Your task to perform on an android device: View the shopping cart on newegg. Add "razer blackwidow" to the cart on newegg Image 0: 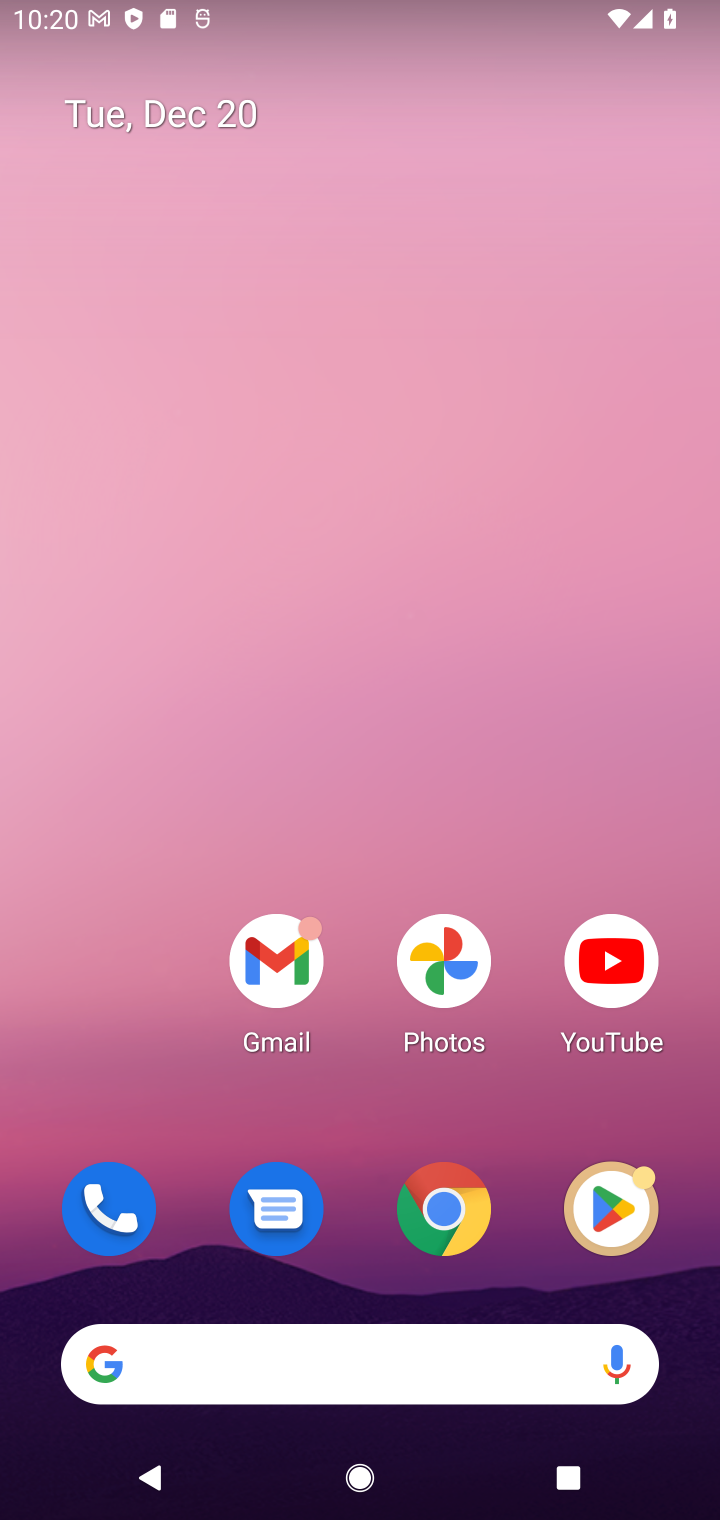
Step 0: click (445, 1214)
Your task to perform on an android device: View the shopping cart on newegg. Add "razer blackwidow" to the cart on newegg Image 1: 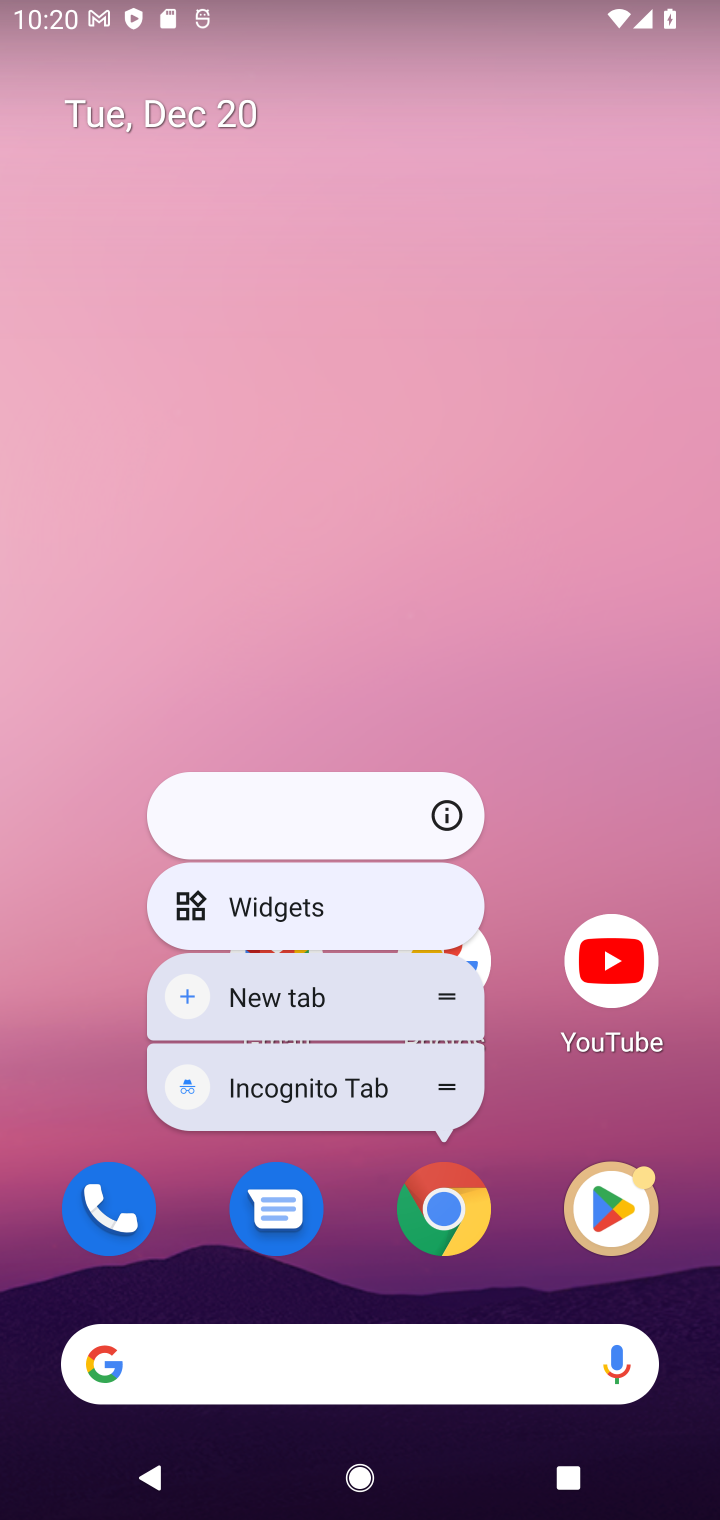
Step 1: click (445, 1214)
Your task to perform on an android device: View the shopping cart on newegg. Add "razer blackwidow" to the cart on newegg Image 2: 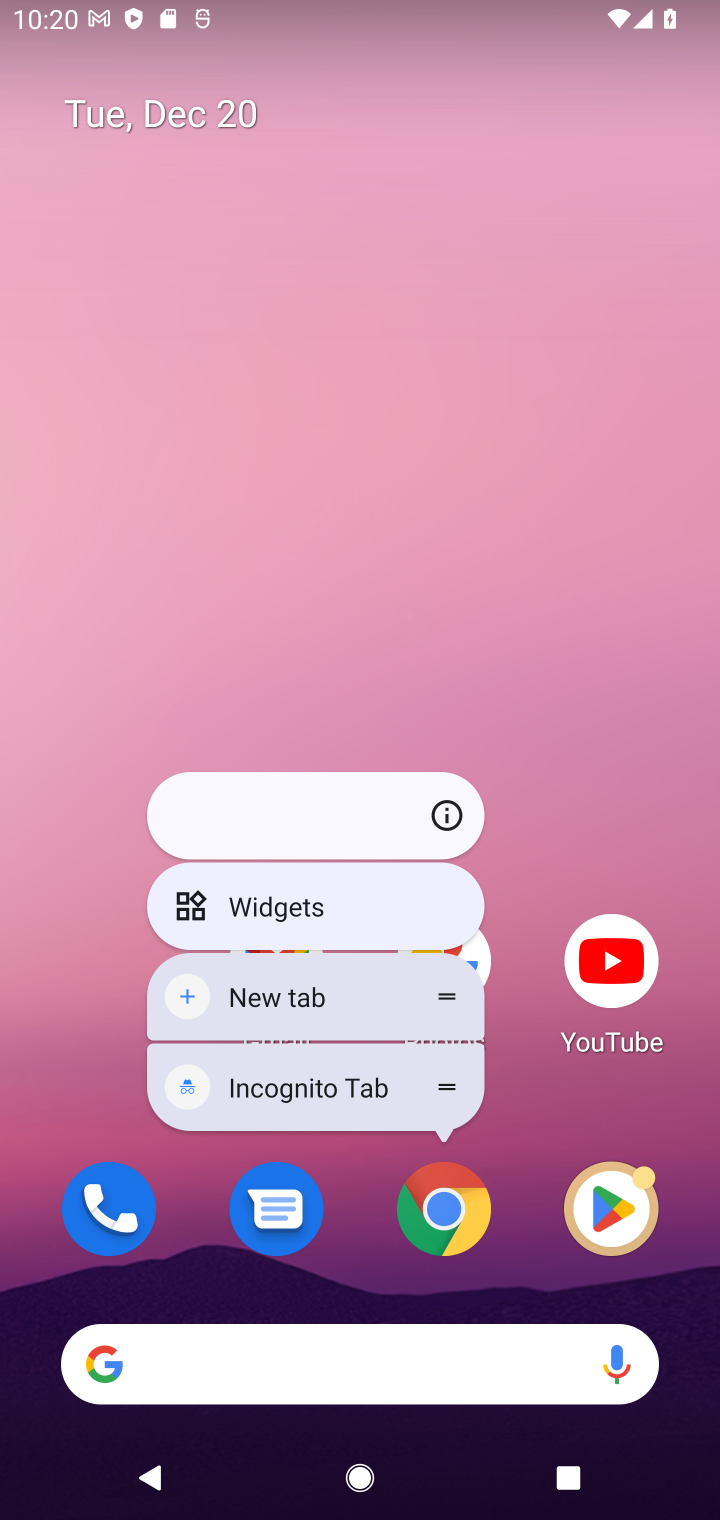
Step 2: click (445, 1214)
Your task to perform on an android device: View the shopping cart on newegg. Add "razer blackwidow" to the cart on newegg Image 3: 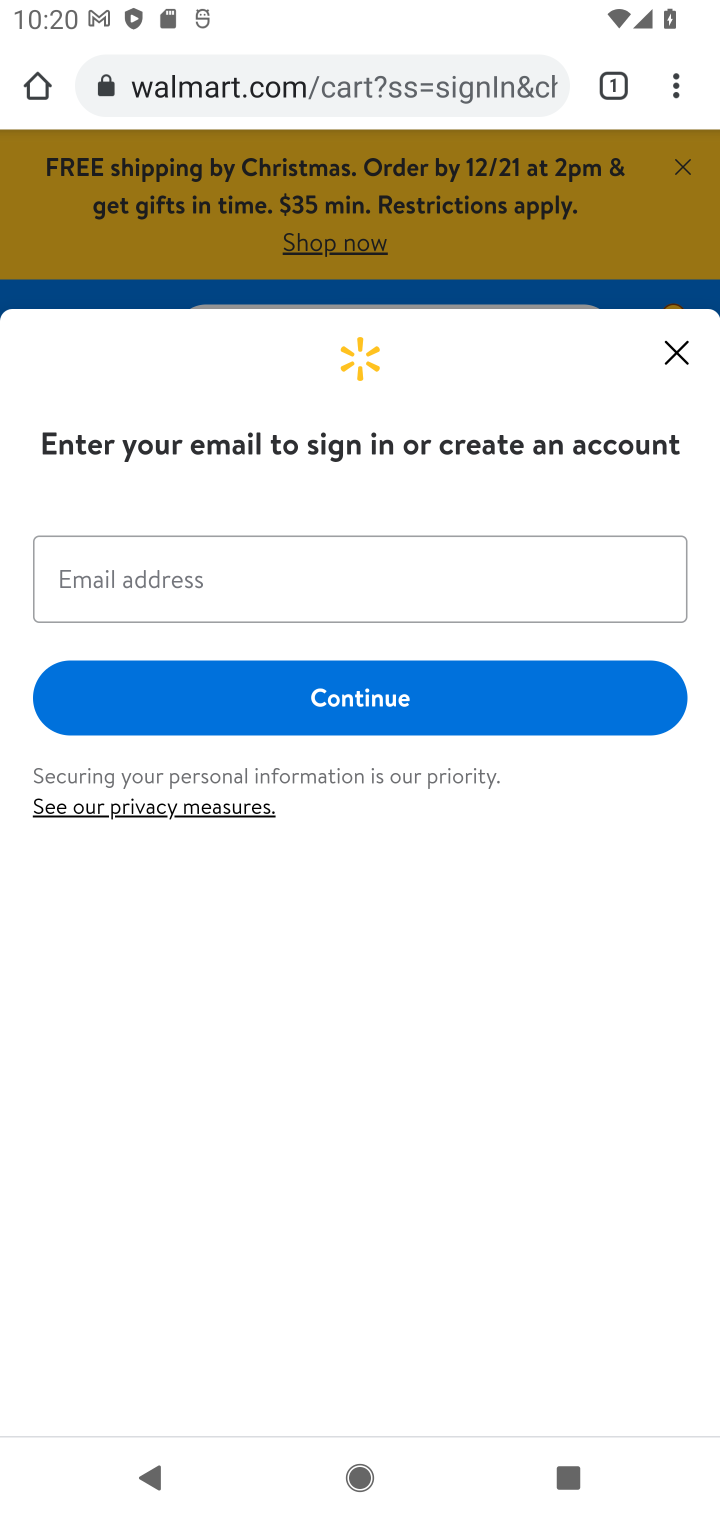
Step 3: click (253, 82)
Your task to perform on an android device: View the shopping cart on newegg. Add "razer blackwidow" to the cart on newegg Image 4: 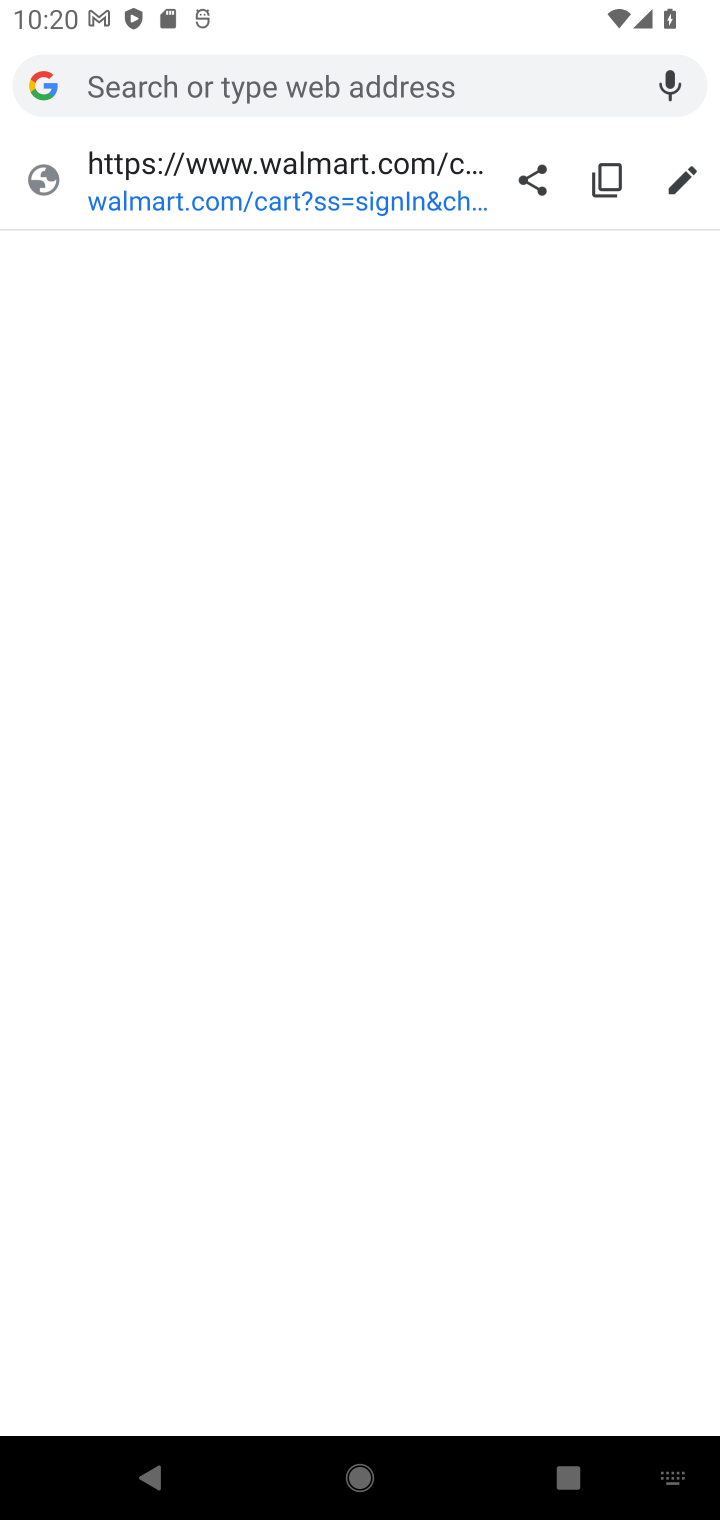
Step 4: type "newegg.com"
Your task to perform on an android device: View the shopping cart on newegg. Add "razer blackwidow" to the cart on newegg Image 5: 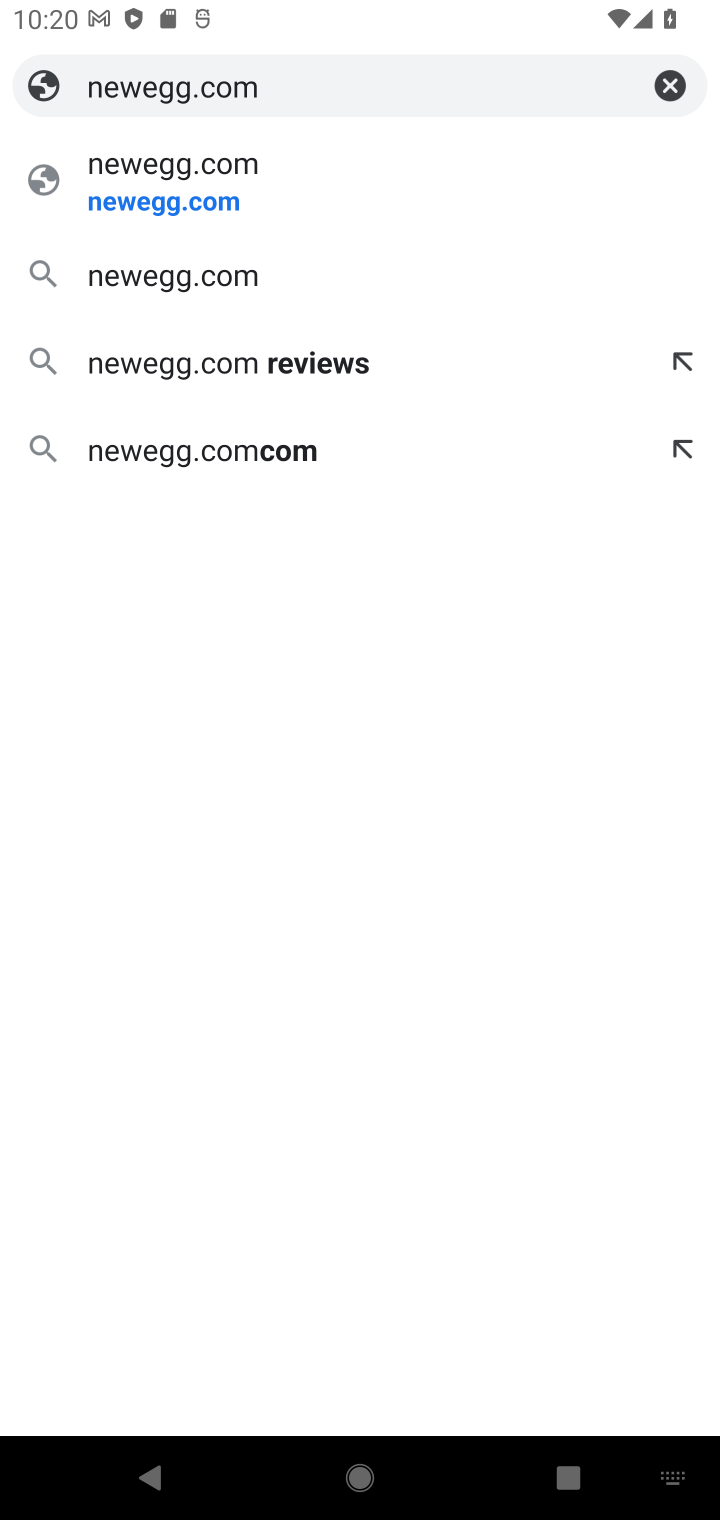
Step 5: click (153, 195)
Your task to perform on an android device: View the shopping cart on newegg. Add "razer blackwidow" to the cart on newegg Image 6: 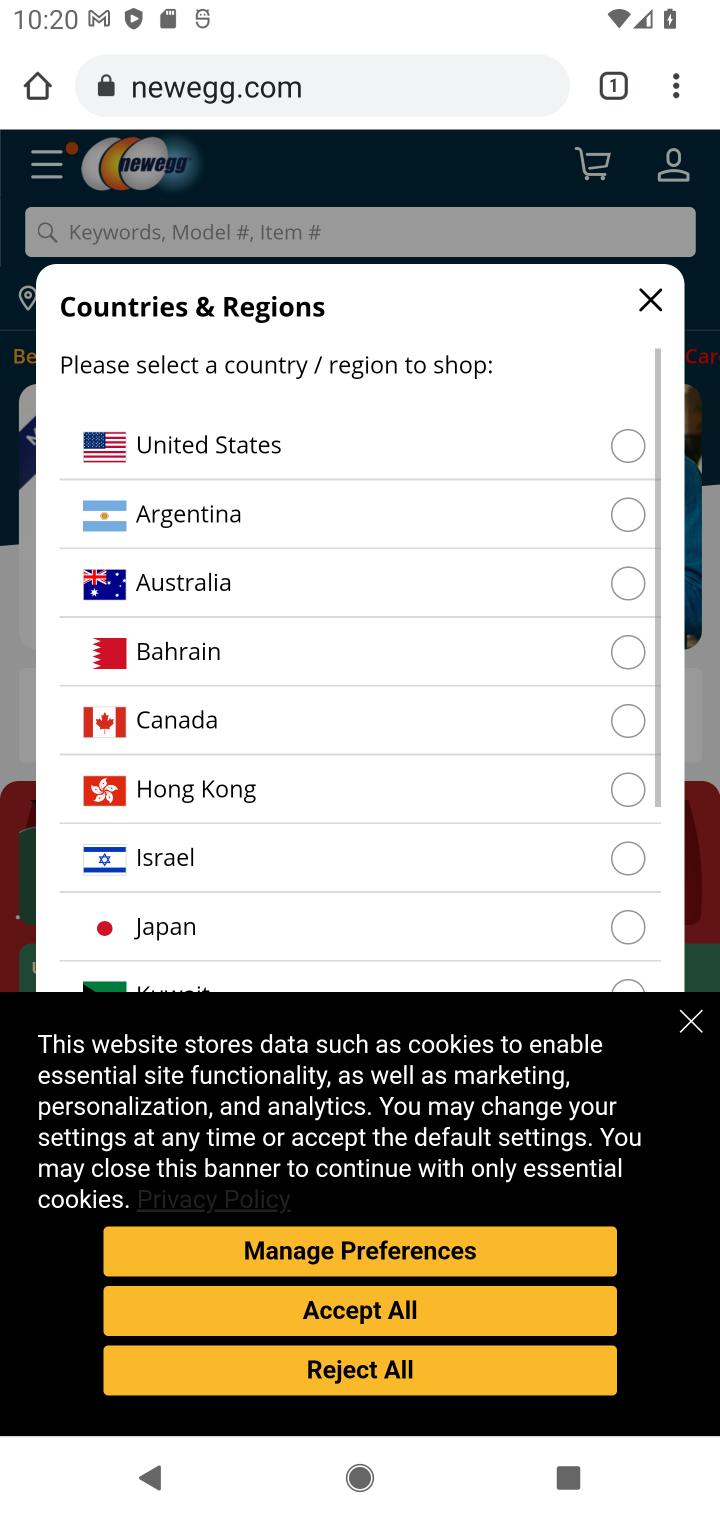
Step 6: click (683, 1029)
Your task to perform on an android device: View the shopping cart on newegg. Add "razer blackwidow" to the cart on newegg Image 7: 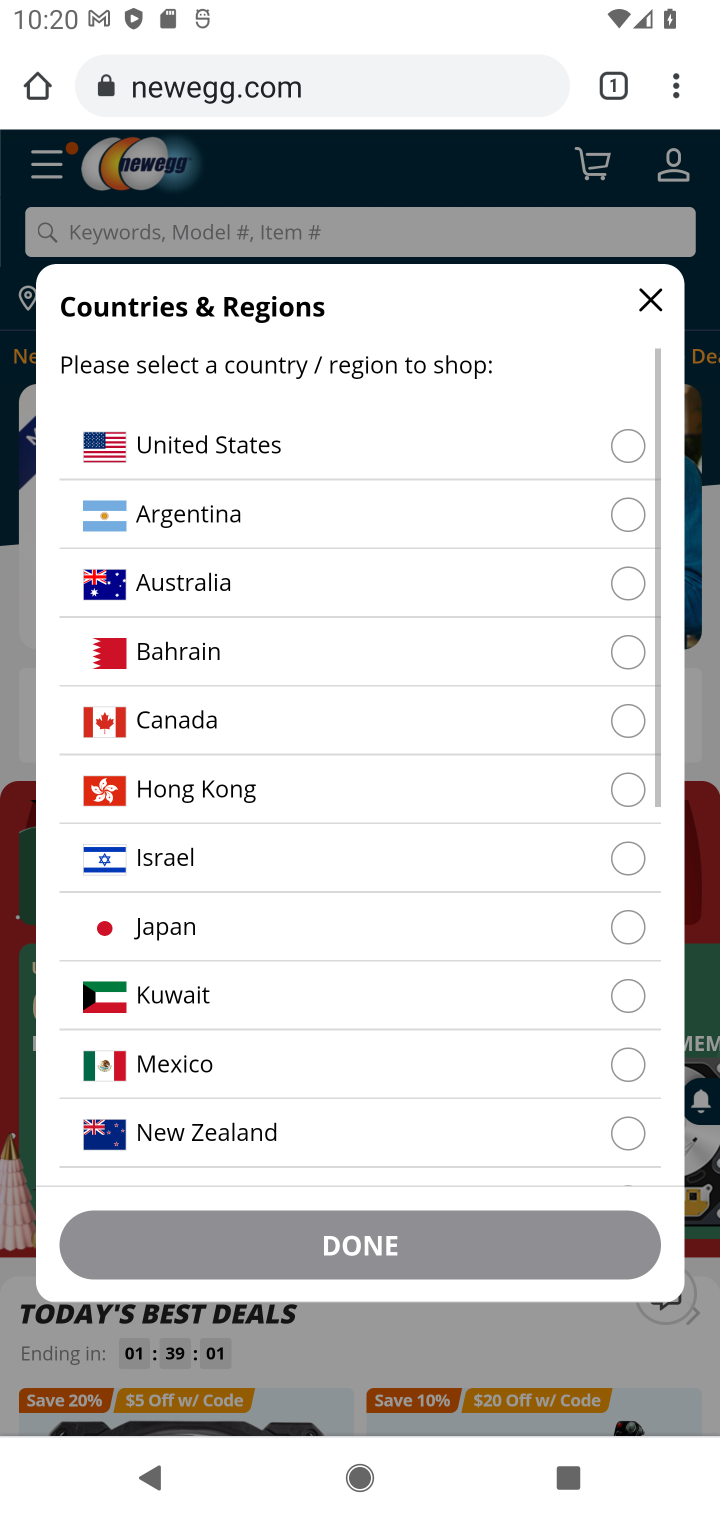
Step 7: click (179, 442)
Your task to perform on an android device: View the shopping cart on newegg. Add "razer blackwidow" to the cart on newegg Image 8: 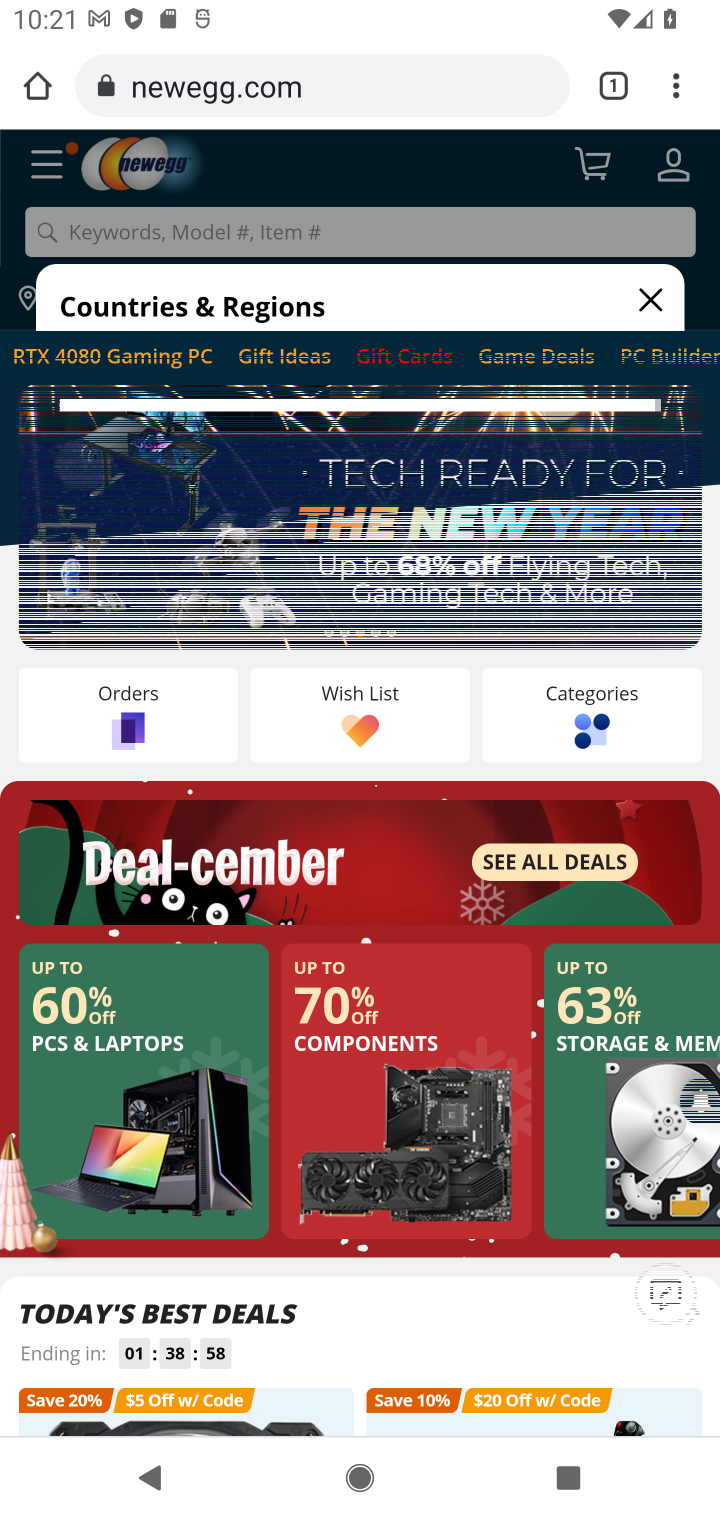
Step 8: click (348, 1244)
Your task to perform on an android device: View the shopping cart on newegg. Add "razer blackwidow" to the cart on newegg Image 9: 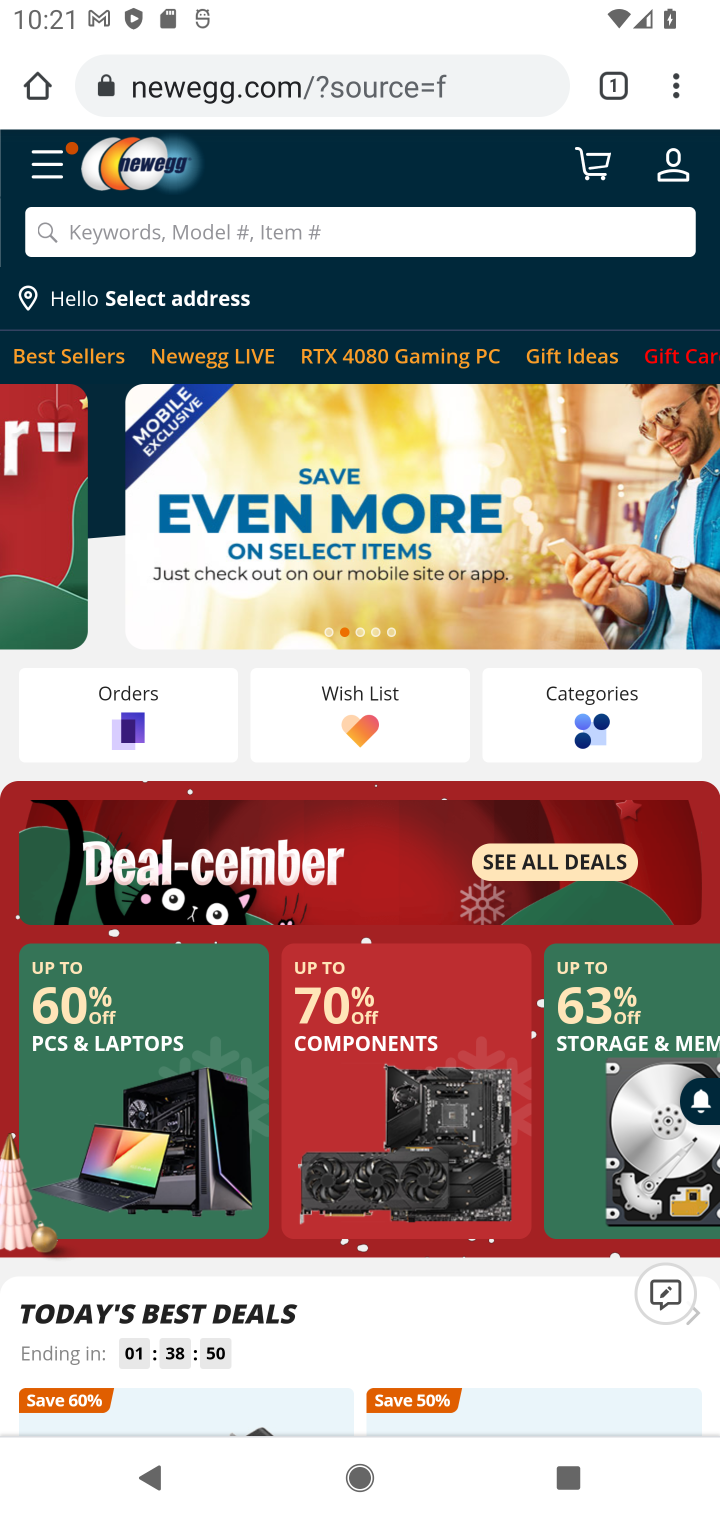
Step 9: click (589, 158)
Your task to perform on an android device: View the shopping cart on newegg. Add "razer blackwidow" to the cart on newegg Image 10: 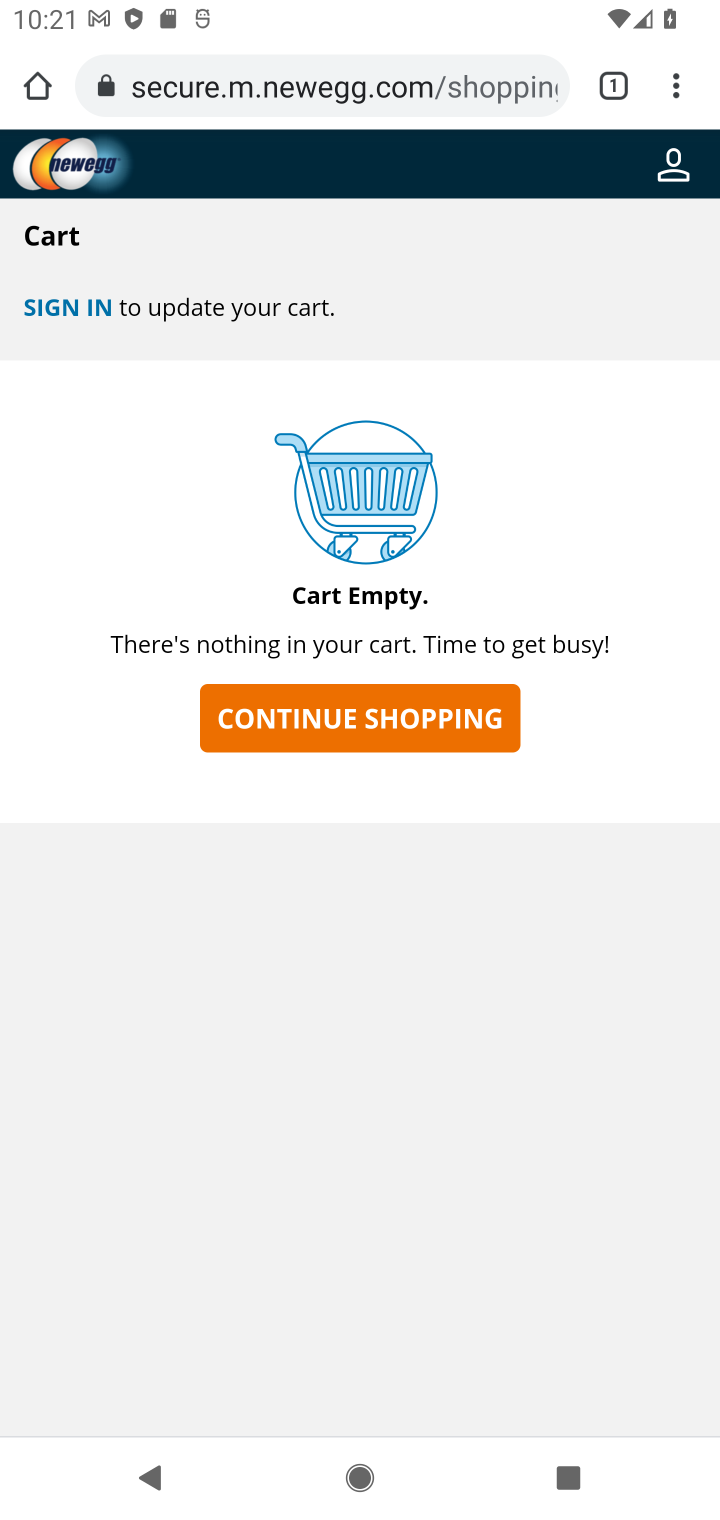
Step 10: click (343, 723)
Your task to perform on an android device: View the shopping cart on newegg. Add "razer blackwidow" to the cart on newegg Image 11: 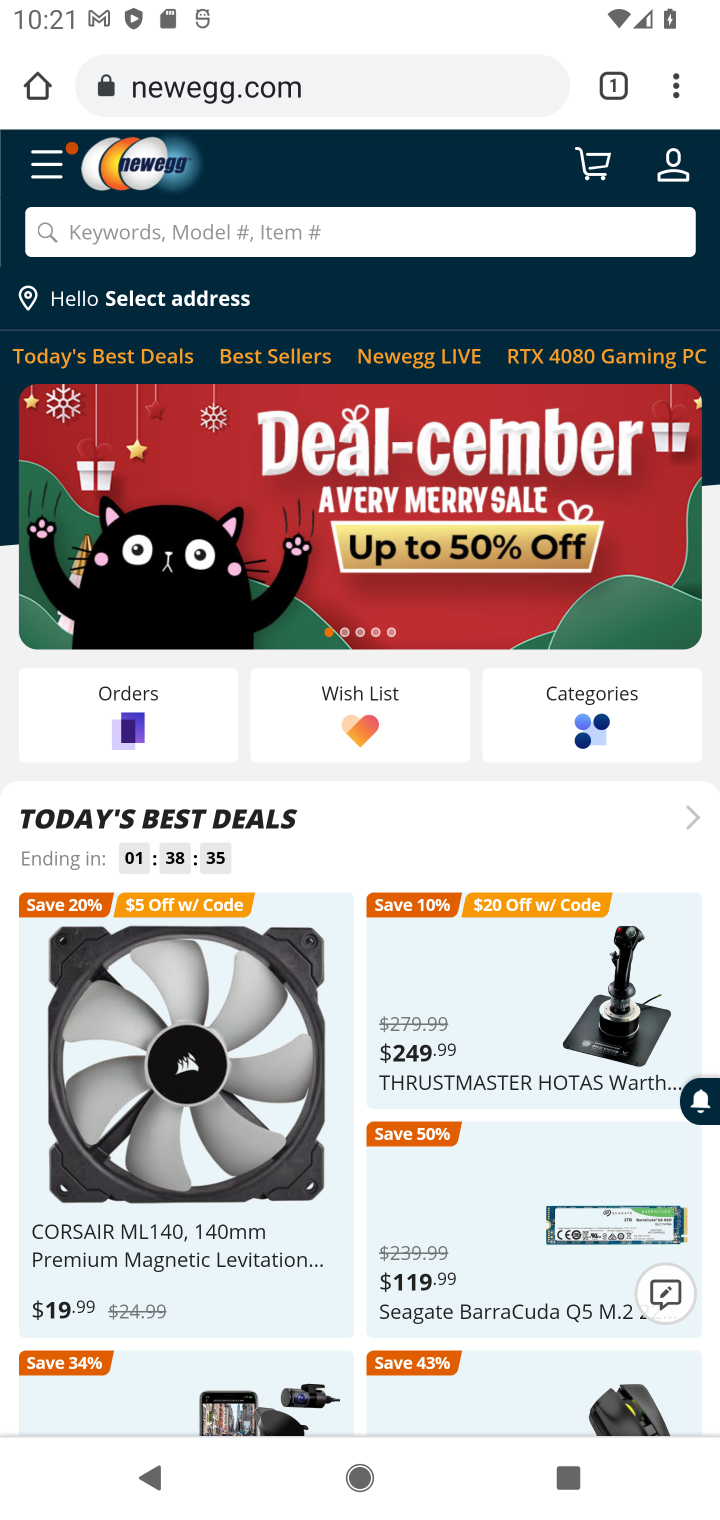
Step 11: click (121, 229)
Your task to perform on an android device: View the shopping cart on newegg. Add "razer blackwidow" to the cart on newegg Image 12: 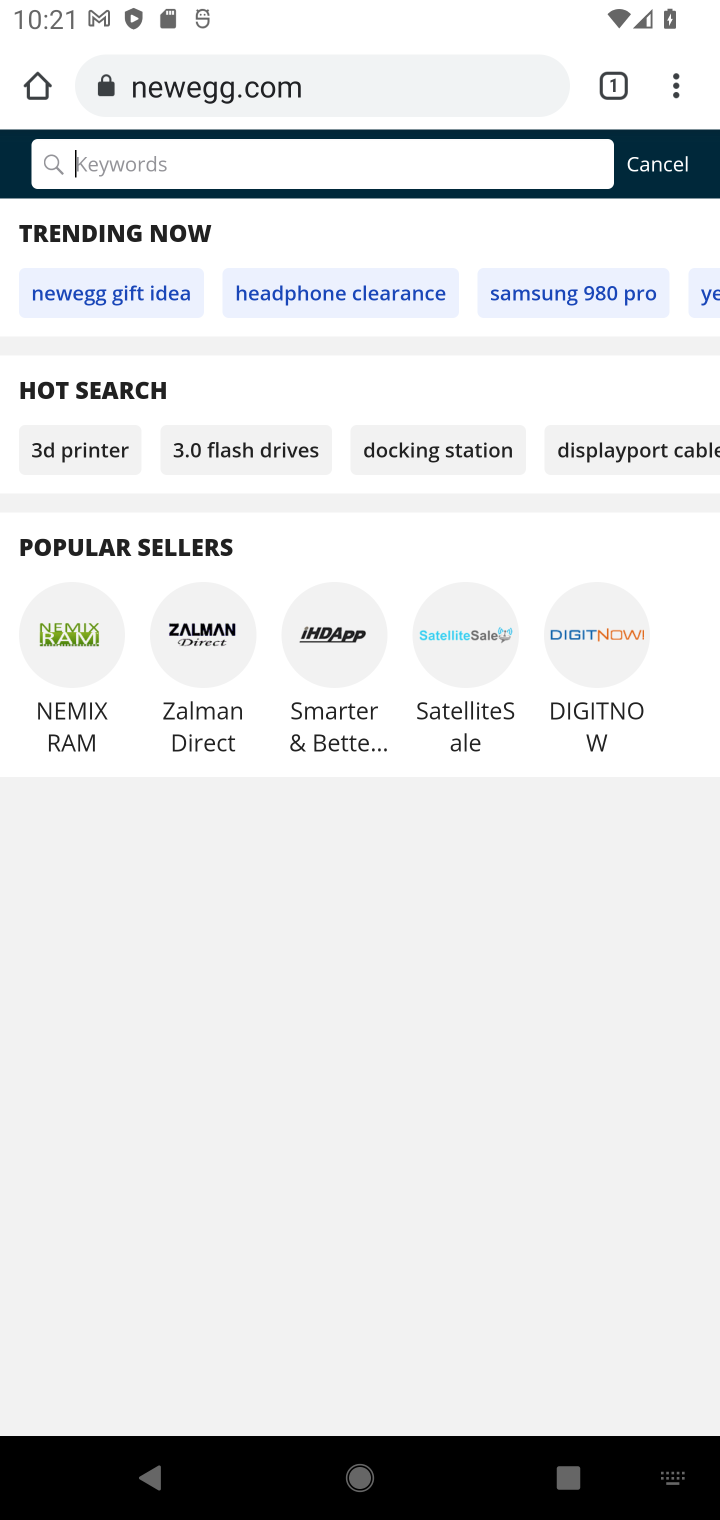
Step 12: type "razer blackwidow"
Your task to perform on an android device: View the shopping cart on newegg. Add "razer blackwidow" to the cart on newegg Image 13: 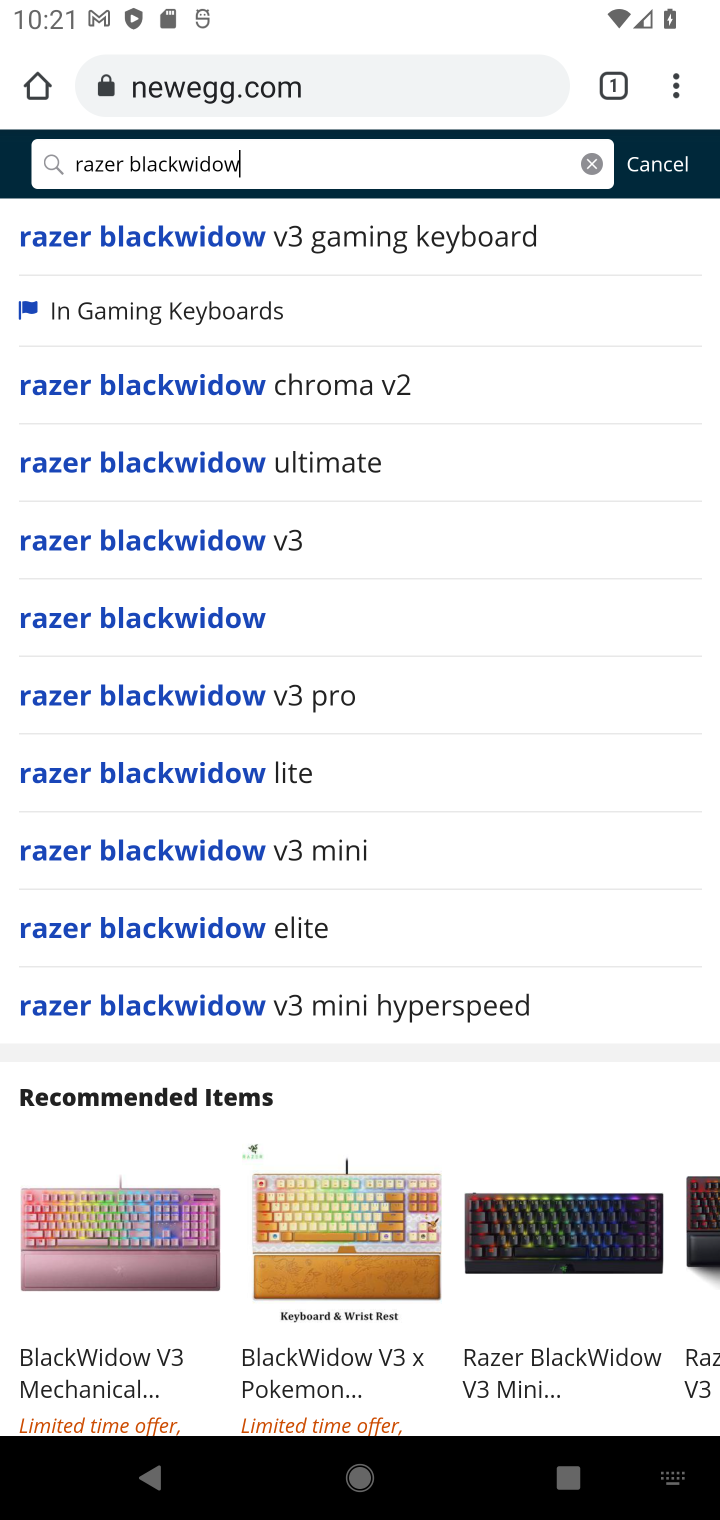
Step 13: click (203, 623)
Your task to perform on an android device: View the shopping cart on newegg. Add "razer blackwidow" to the cart on newegg Image 14: 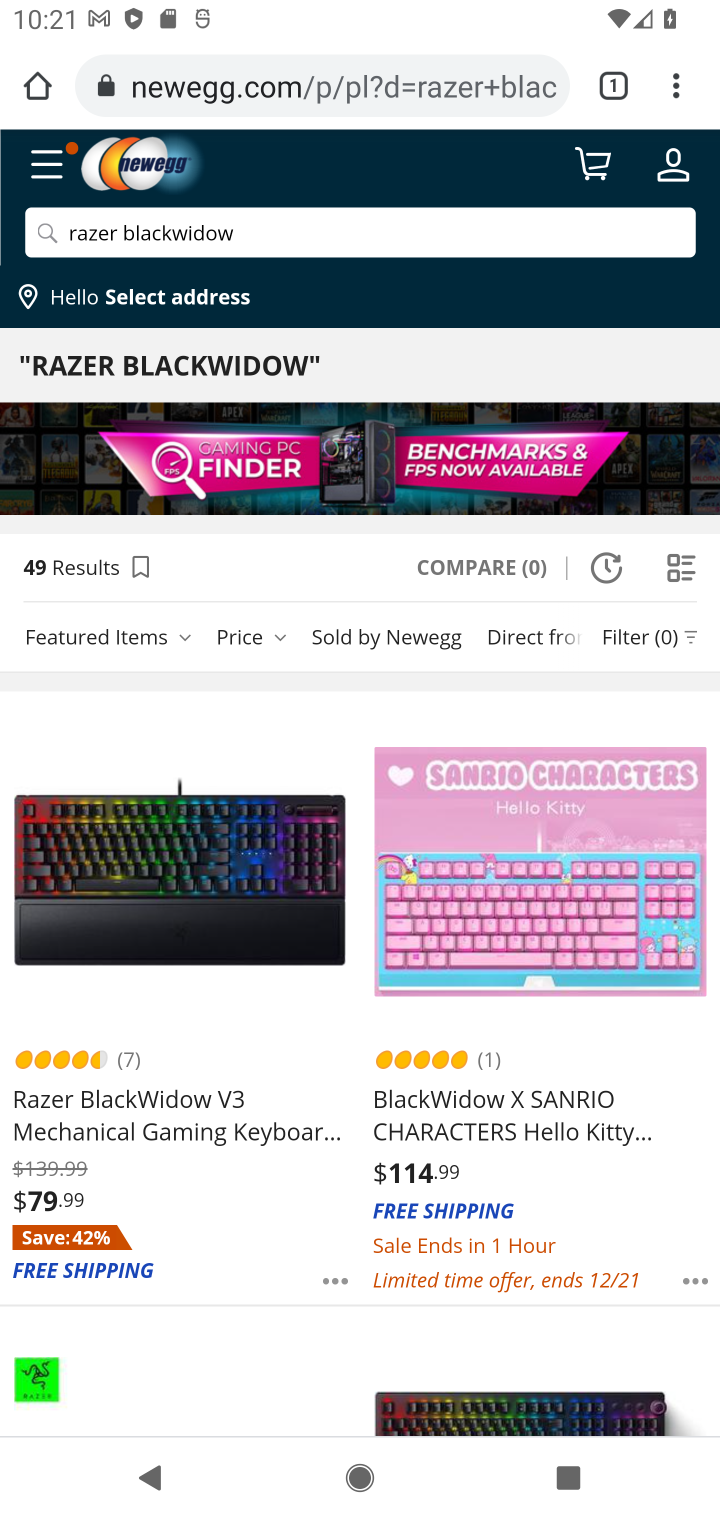
Step 14: click (106, 1111)
Your task to perform on an android device: View the shopping cart on newegg. Add "razer blackwidow" to the cart on newegg Image 15: 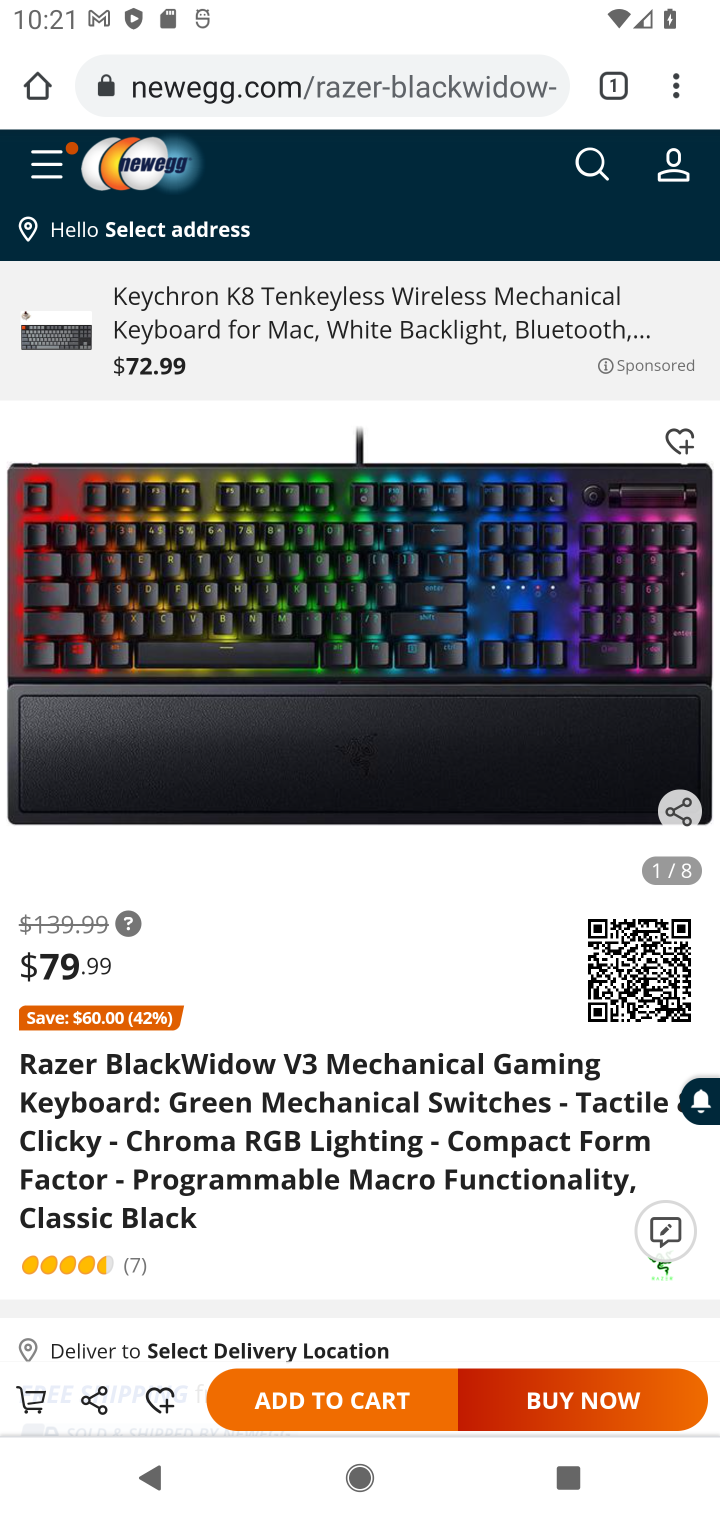
Step 15: click (323, 1402)
Your task to perform on an android device: View the shopping cart on newegg. Add "razer blackwidow" to the cart on newegg Image 16: 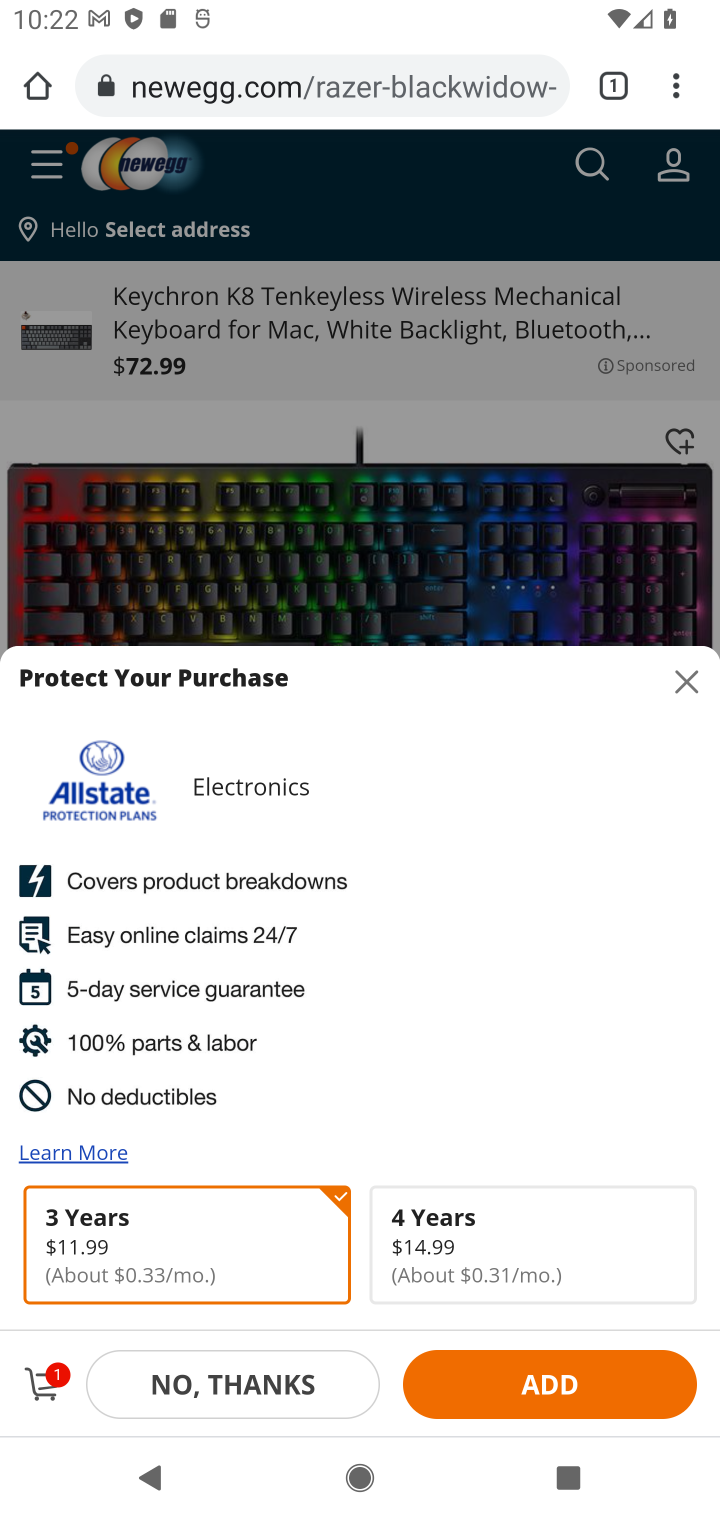
Step 16: task complete